Your task to perform on an android device: remove spam from my inbox in the gmail app Image 0: 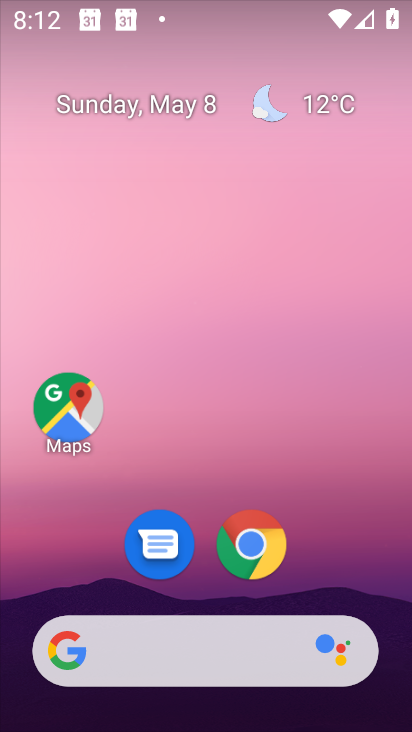
Step 0: drag from (334, 568) to (224, 9)
Your task to perform on an android device: remove spam from my inbox in the gmail app Image 1: 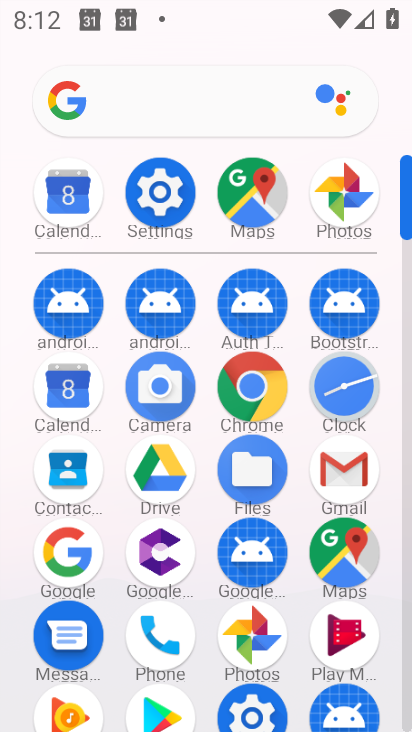
Step 1: click (339, 477)
Your task to perform on an android device: remove spam from my inbox in the gmail app Image 2: 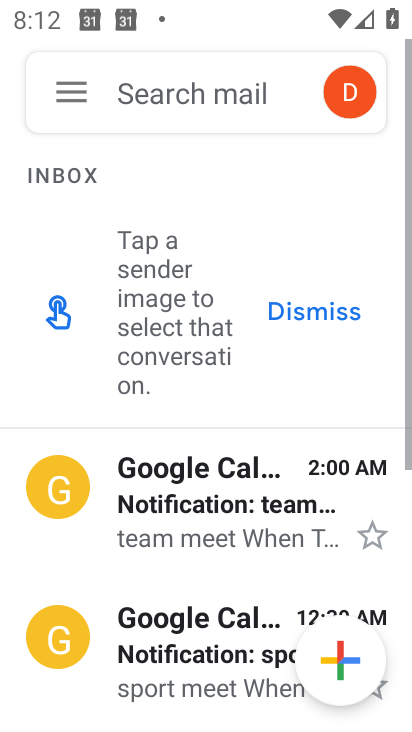
Step 2: click (72, 86)
Your task to perform on an android device: remove spam from my inbox in the gmail app Image 3: 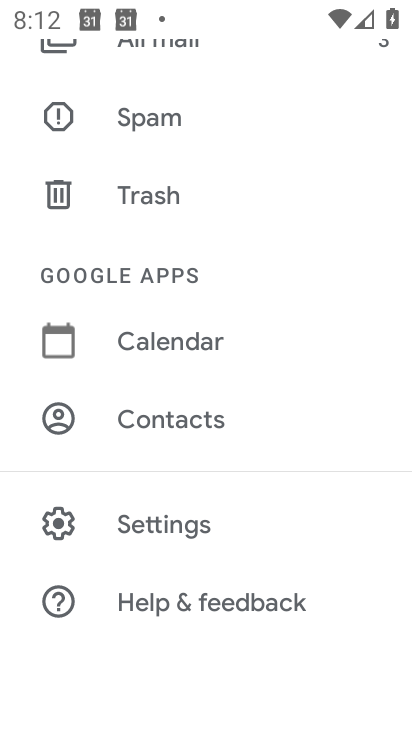
Step 3: click (135, 114)
Your task to perform on an android device: remove spam from my inbox in the gmail app Image 4: 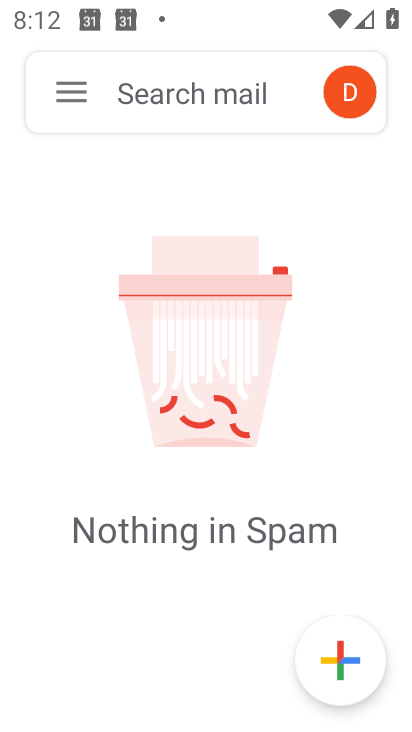
Step 4: task complete